Your task to perform on an android device: Go to network settings Image 0: 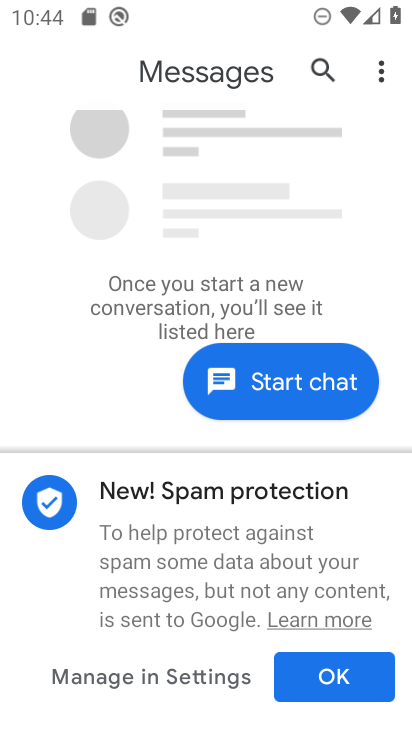
Step 0: press home button
Your task to perform on an android device: Go to network settings Image 1: 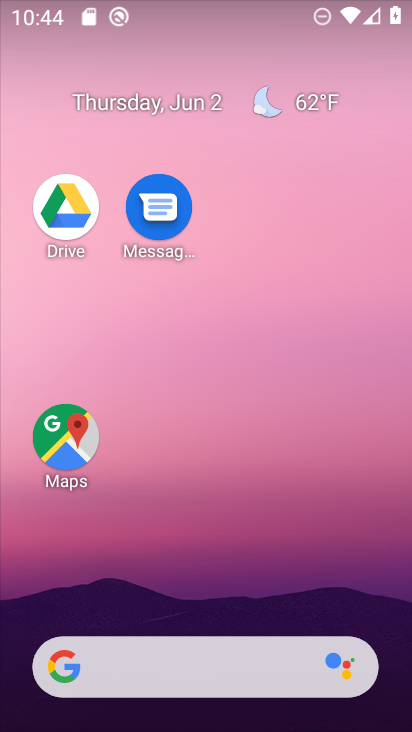
Step 1: drag from (200, 639) to (153, 56)
Your task to perform on an android device: Go to network settings Image 2: 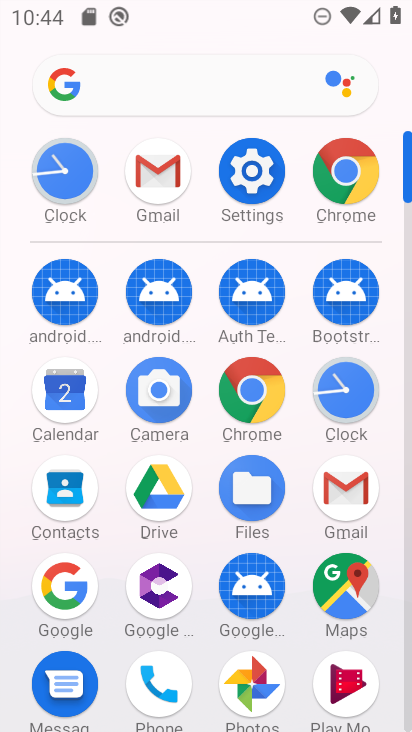
Step 2: click (259, 162)
Your task to perform on an android device: Go to network settings Image 3: 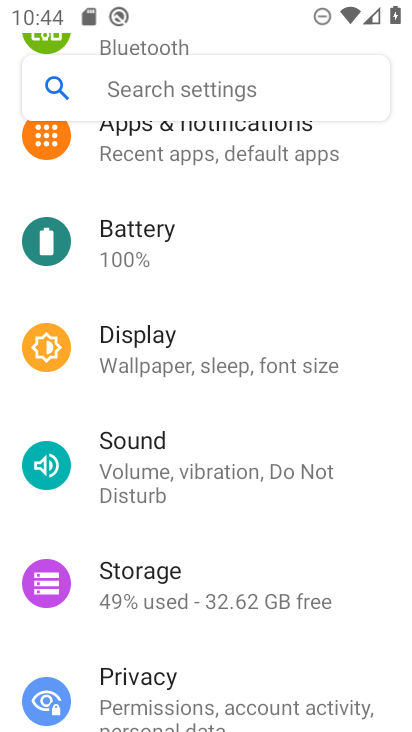
Step 3: drag from (229, 217) to (208, 717)
Your task to perform on an android device: Go to network settings Image 4: 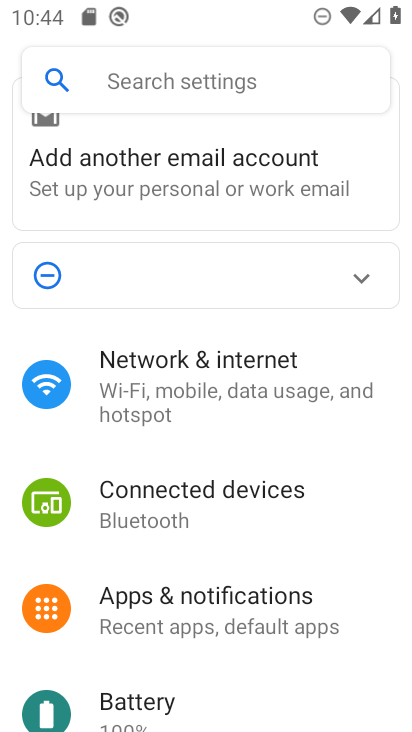
Step 4: click (187, 385)
Your task to perform on an android device: Go to network settings Image 5: 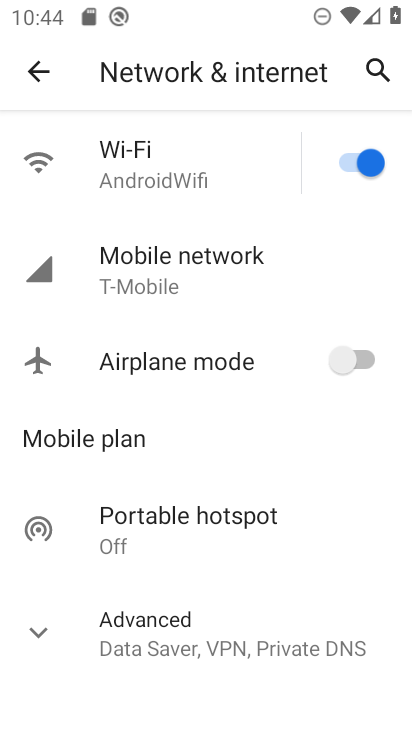
Step 5: click (204, 246)
Your task to perform on an android device: Go to network settings Image 6: 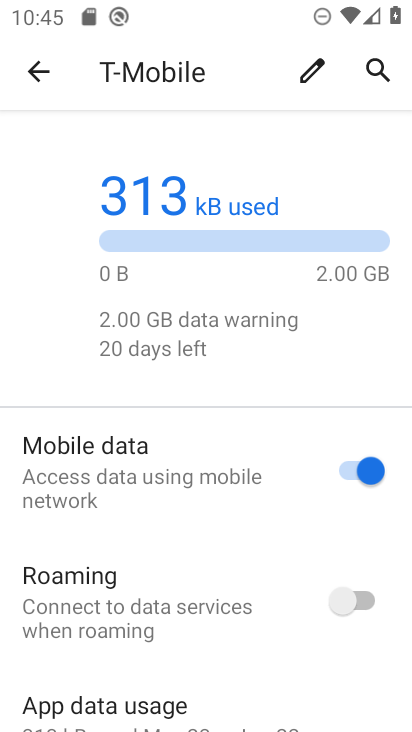
Step 6: press home button
Your task to perform on an android device: Go to network settings Image 7: 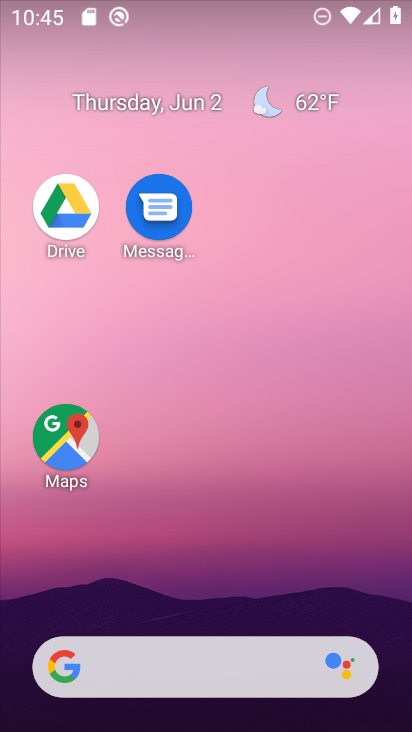
Step 7: drag from (182, 612) to (179, 7)
Your task to perform on an android device: Go to network settings Image 8: 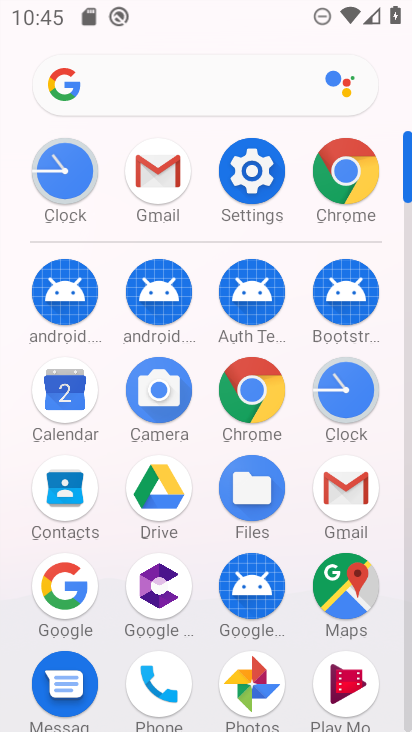
Step 8: click (261, 187)
Your task to perform on an android device: Go to network settings Image 9: 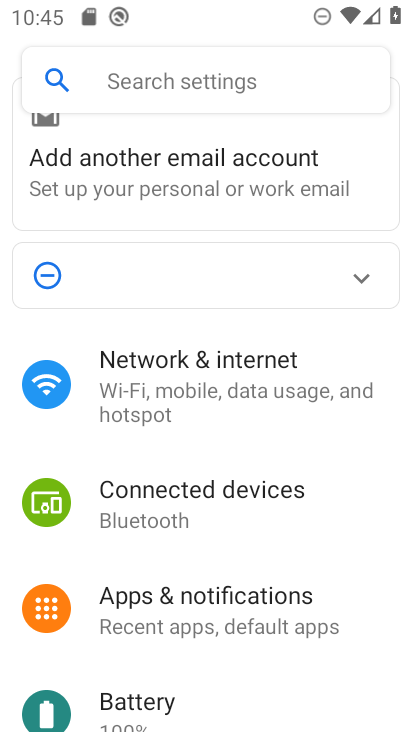
Step 9: click (166, 358)
Your task to perform on an android device: Go to network settings Image 10: 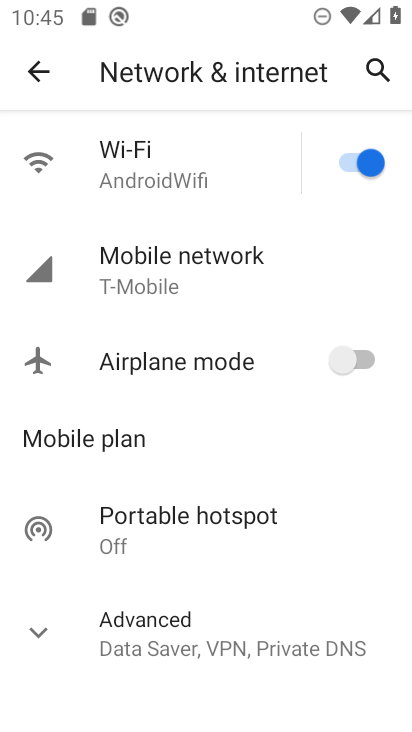
Step 10: click (198, 274)
Your task to perform on an android device: Go to network settings Image 11: 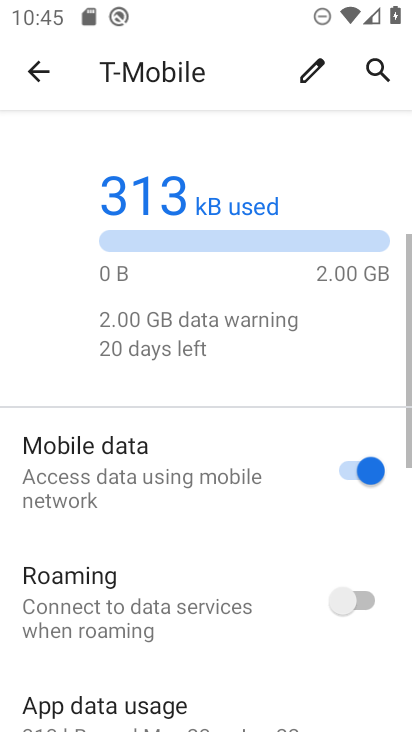
Step 11: task complete